Your task to perform on an android device: empty trash in the gmail app Image 0: 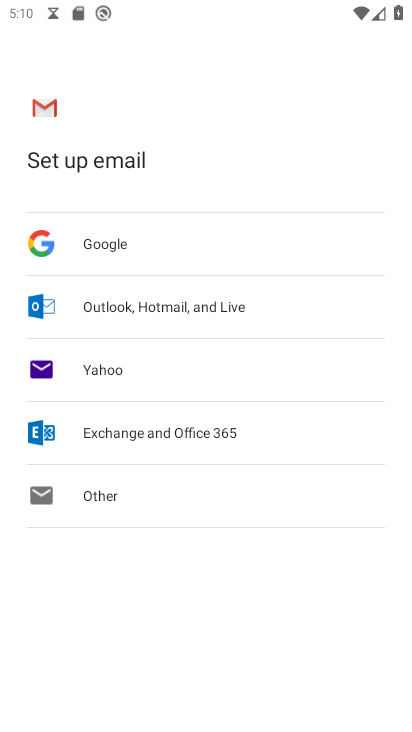
Step 0: press home button
Your task to perform on an android device: empty trash in the gmail app Image 1: 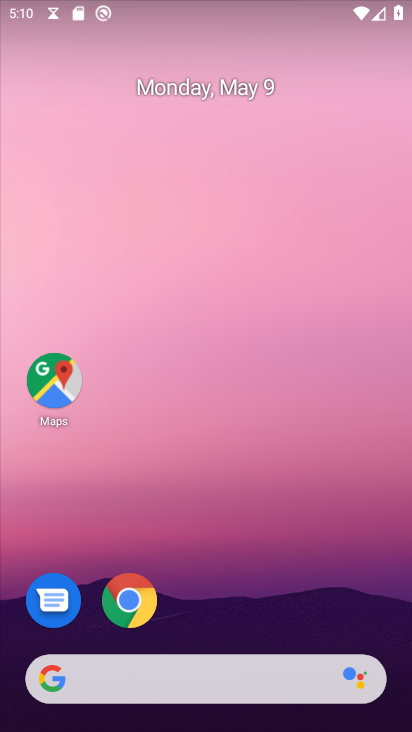
Step 1: drag from (235, 673) to (266, 47)
Your task to perform on an android device: empty trash in the gmail app Image 2: 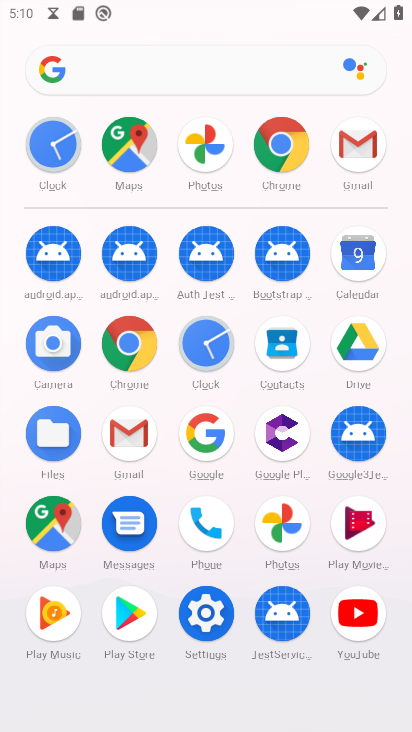
Step 2: click (133, 442)
Your task to perform on an android device: empty trash in the gmail app Image 3: 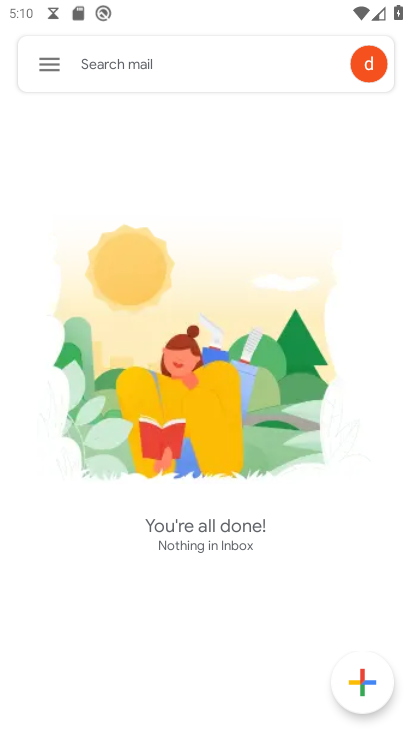
Step 3: click (36, 62)
Your task to perform on an android device: empty trash in the gmail app Image 4: 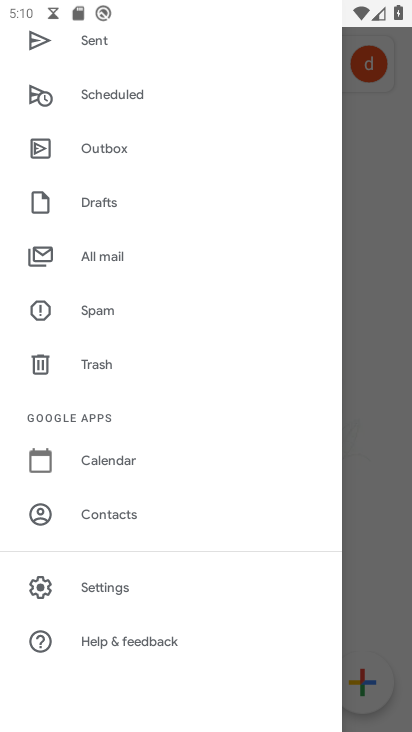
Step 4: click (92, 366)
Your task to perform on an android device: empty trash in the gmail app Image 5: 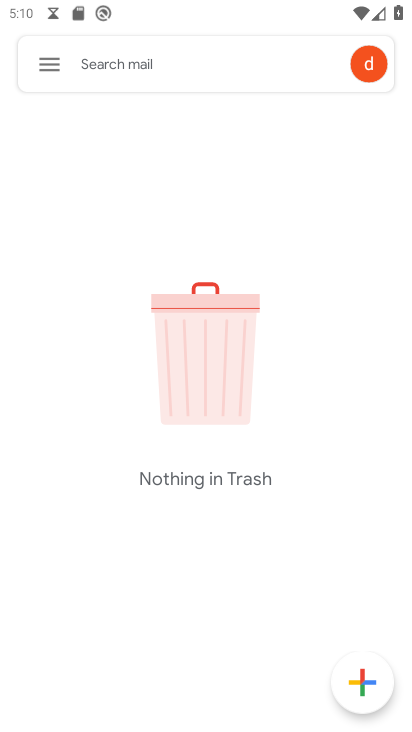
Step 5: task complete